Your task to perform on an android device: turn on sleep mode Image 0: 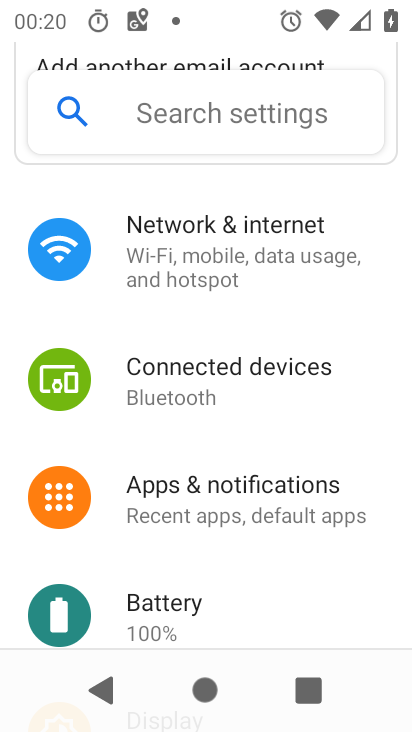
Step 0: press home button
Your task to perform on an android device: turn on sleep mode Image 1: 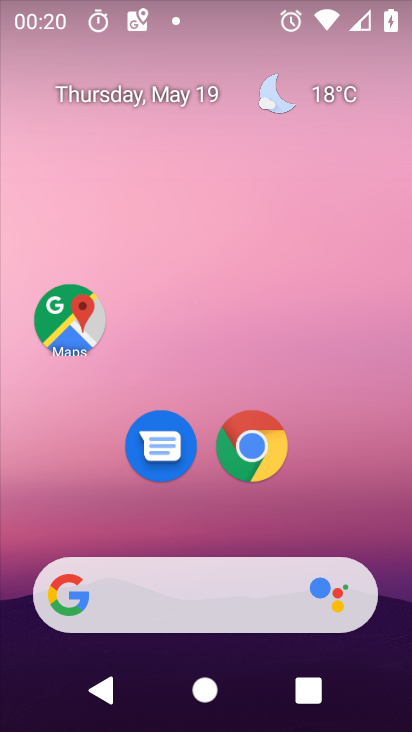
Step 1: drag from (157, 607) to (309, 197)
Your task to perform on an android device: turn on sleep mode Image 2: 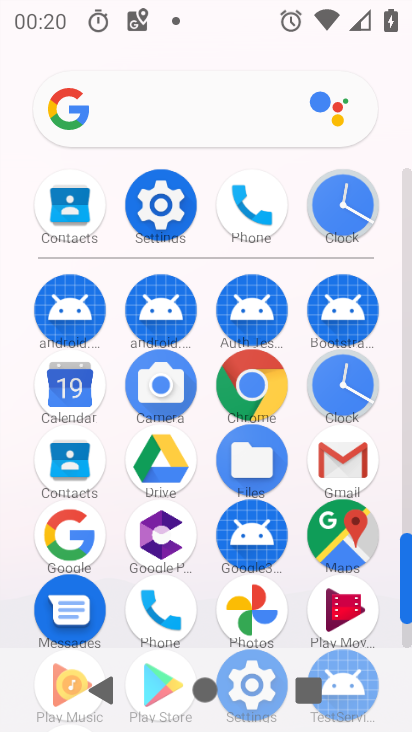
Step 2: click (160, 212)
Your task to perform on an android device: turn on sleep mode Image 3: 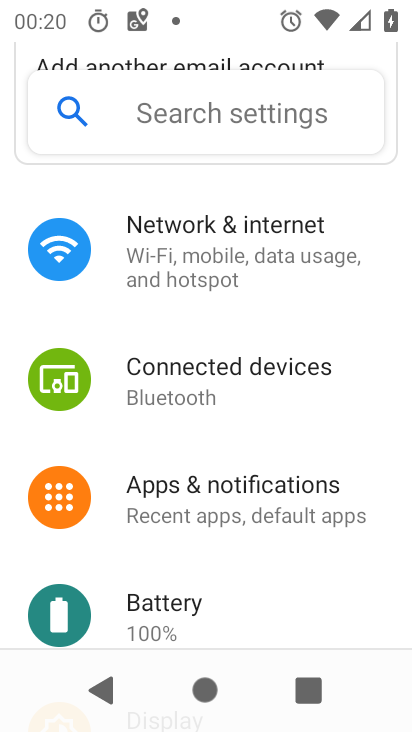
Step 3: drag from (223, 558) to (341, 240)
Your task to perform on an android device: turn on sleep mode Image 4: 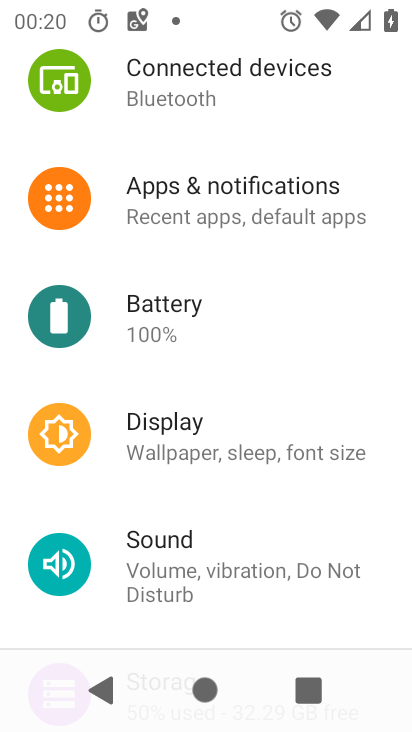
Step 4: click (231, 440)
Your task to perform on an android device: turn on sleep mode Image 5: 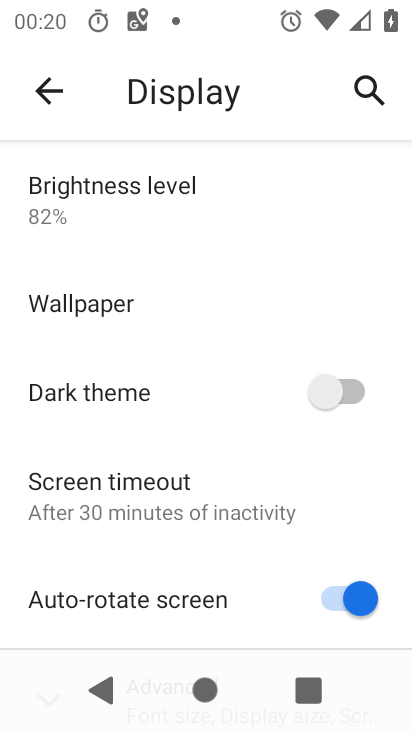
Step 5: task complete